Your task to perform on an android device: Search for Italian restaurants on Maps Image 0: 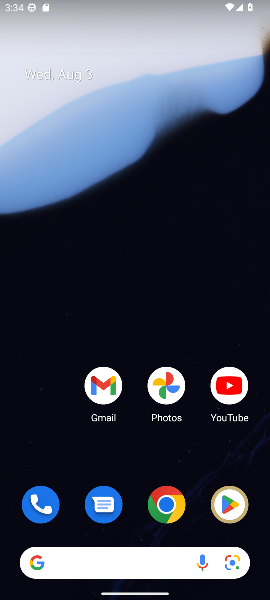
Step 0: drag from (127, 468) to (138, 11)
Your task to perform on an android device: Search for Italian restaurants on Maps Image 1: 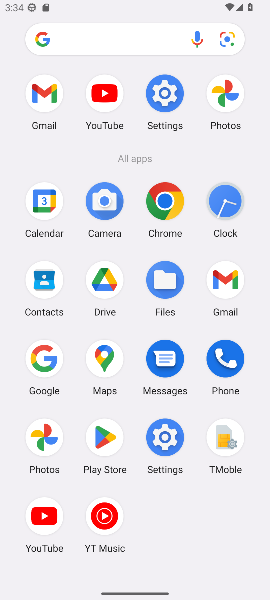
Step 1: click (94, 368)
Your task to perform on an android device: Search for Italian restaurants on Maps Image 2: 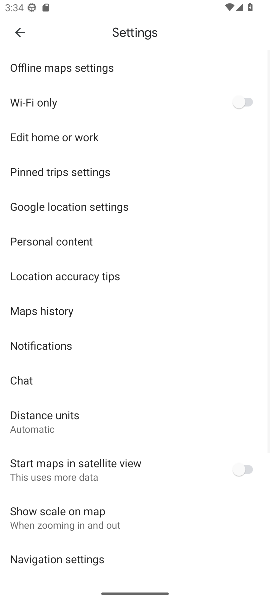
Step 2: click (25, 28)
Your task to perform on an android device: Search for Italian restaurants on Maps Image 3: 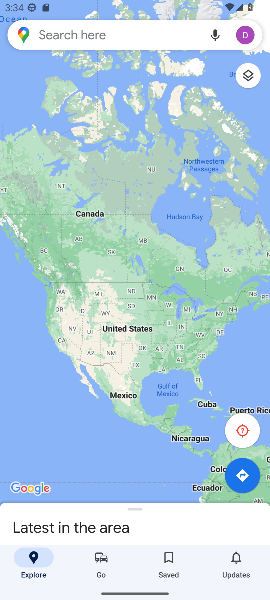
Step 3: click (104, 38)
Your task to perform on an android device: Search for Italian restaurants on Maps Image 4: 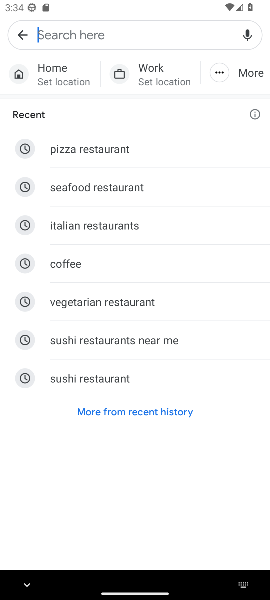
Step 4: type "italian restaurants"
Your task to perform on an android device: Search for Italian restaurants on Maps Image 5: 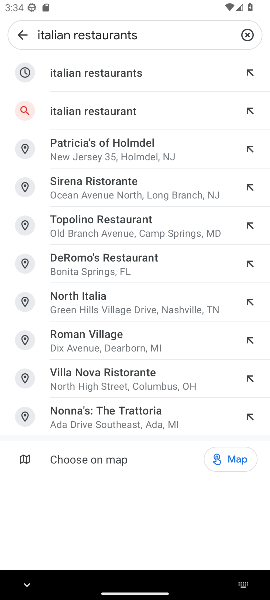
Step 5: click (121, 71)
Your task to perform on an android device: Search for Italian restaurants on Maps Image 6: 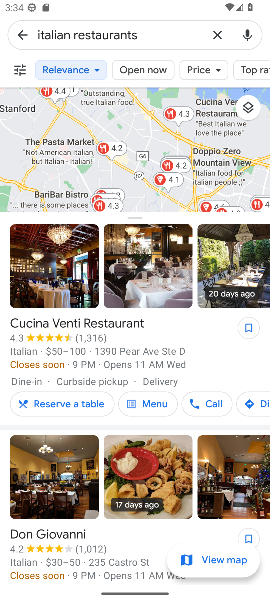
Step 6: task complete